Your task to perform on an android device: check battery use Image 0: 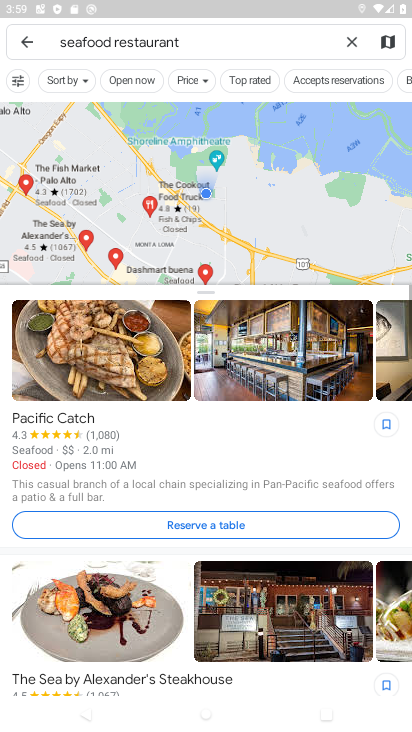
Step 0: press home button
Your task to perform on an android device: check battery use Image 1: 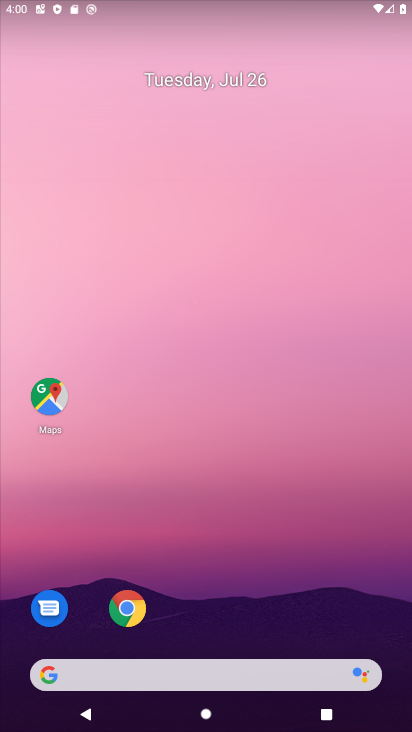
Step 1: drag from (195, 648) to (200, 29)
Your task to perform on an android device: check battery use Image 2: 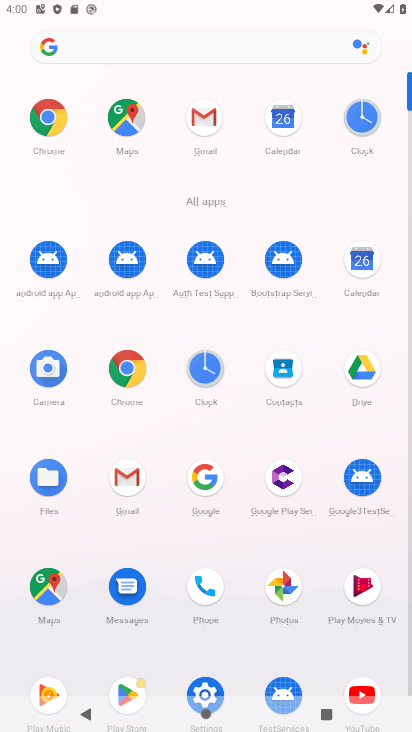
Step 2: click (189, 679)
Your task to perform on an android device: check battery use Image 3: 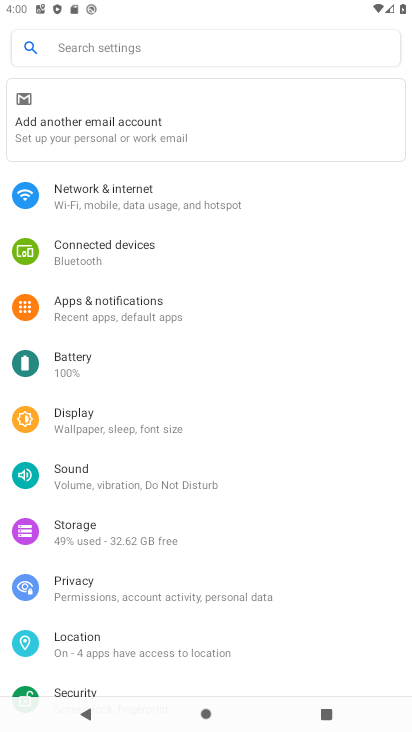
Step 3: click (62, 359)
Your task to perform on an android device: check battery use Image 4: 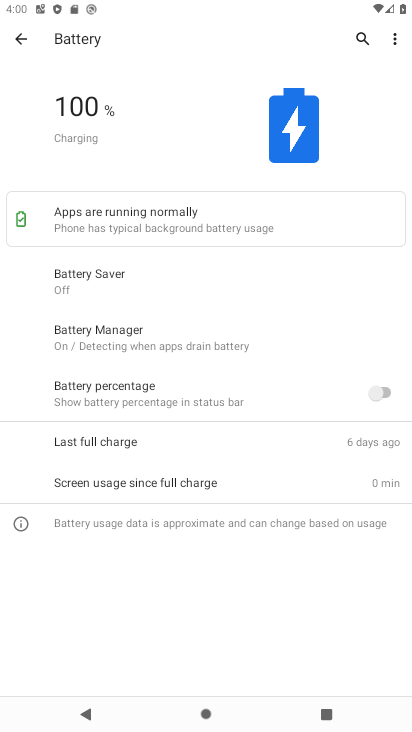
Step 4: task complete